Your task to perform on an android device: Open Google Chrome and click the shortcut for Amazon.com Image 0: 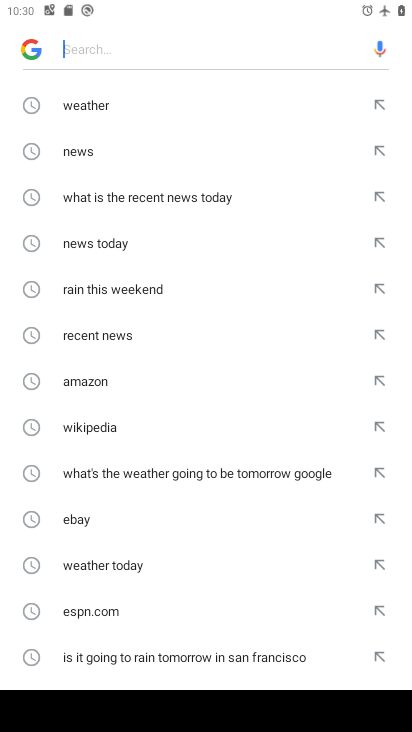
Step 0: press home button
Your task to perform on an android device: Open Google Chrome and click the shortcut for Amazon.com Image 1: 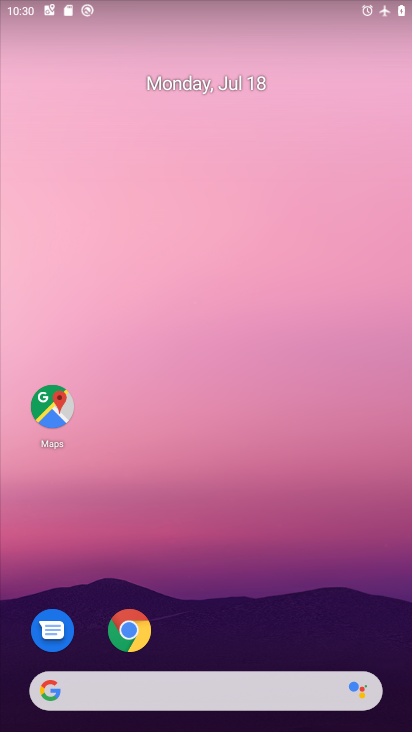
Step 1: click (134, 640)
Your task to perform on an android device: Open Google Chrome and click the shortcut for Amazon.com Image 2: 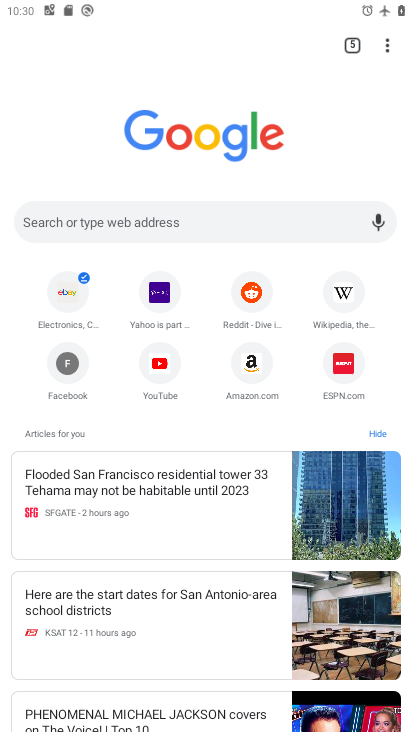
Step 2: click (242, 388)
Your task to perform on an android device: Open Google Chrome and click the shortcut for Amazon.com Image 3: 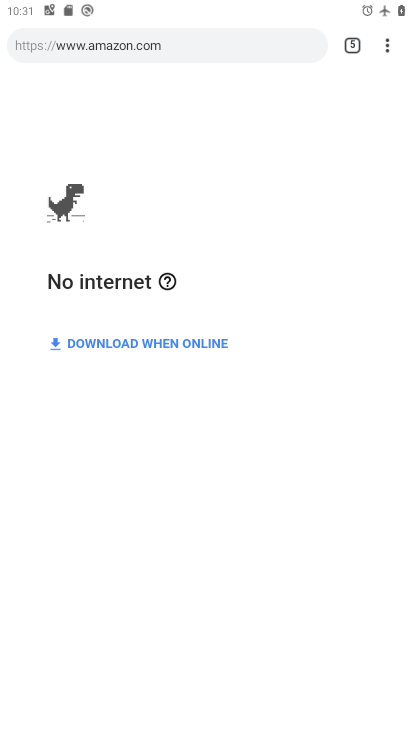
Step 3: task complete